Your task to perform on an android device: Search for seafood restaurants on Google Maps Image 0: 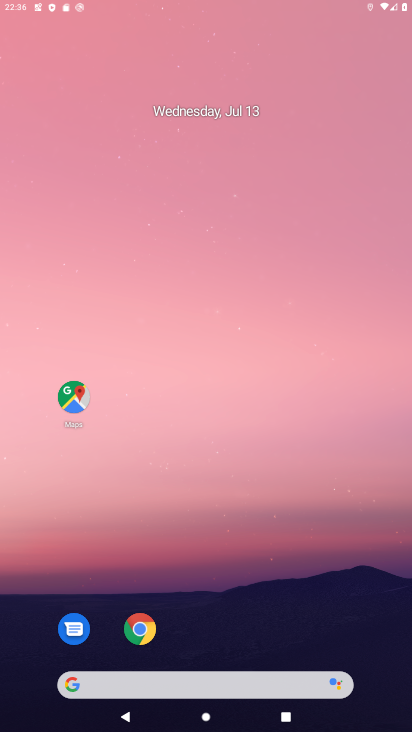
Step 0: click (208, 78)
Your task to perform on an android device: Search for seafood restaurants on Google Maps Image 1: 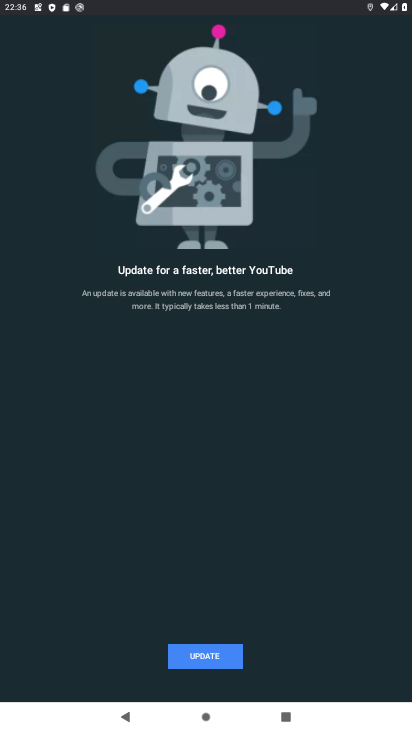
Step 1: press home button
Your task to perform on an android device: Search for seafood restaurants on Google Maps Image 2: 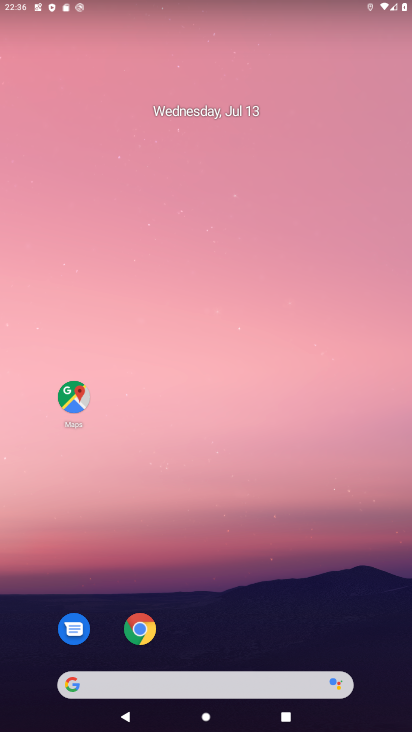
Step 2: click (70, 388)
Your task to perform on an android device: Search for seafood restaurants on Google Maps Image 3: 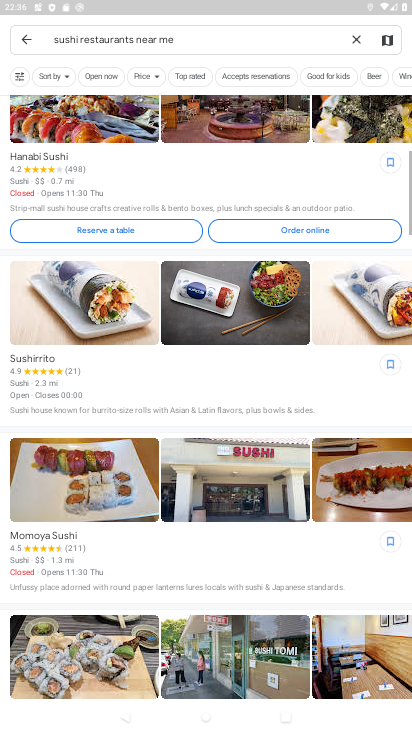
Step 3: task complete